Your task to perform on an android device: What is the news today? Image 0: 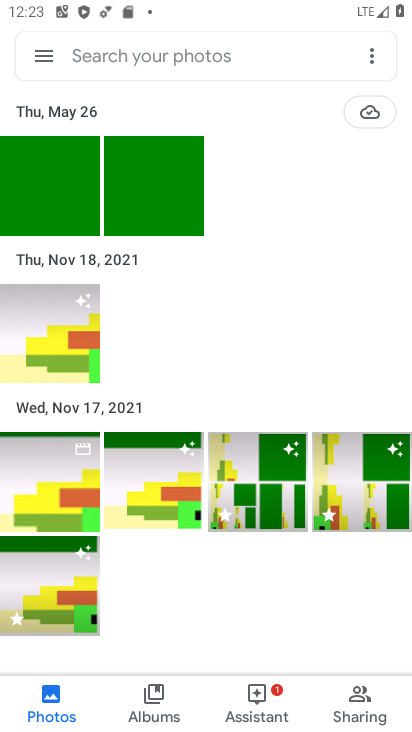
Step 0: press home button
Your task to perform on an android device: What is the news today? Image 1: 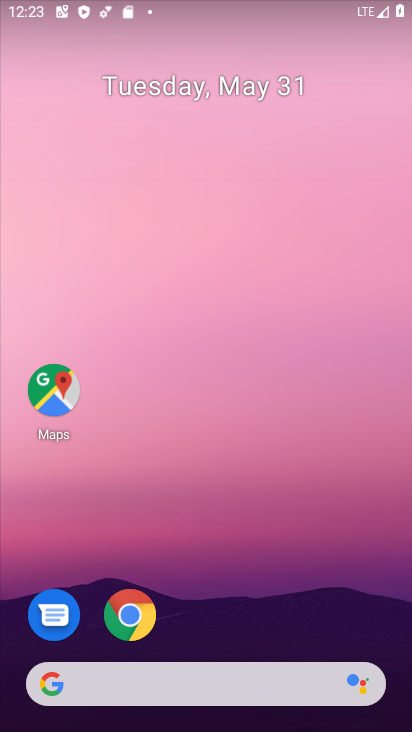
Step 1: click (191, 693)
Your task to perform on an android device: What is the news today? Image 2: 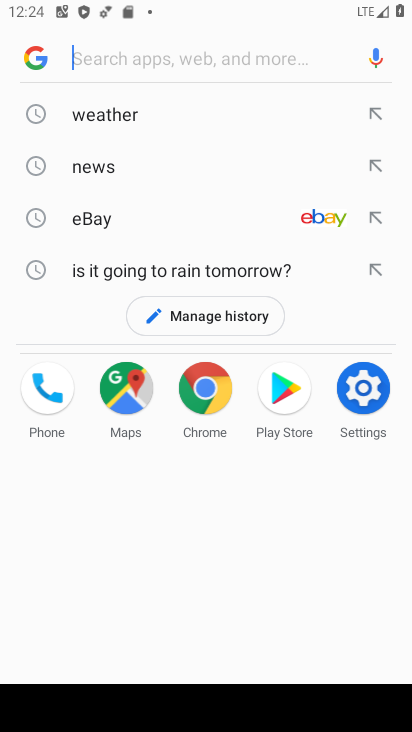
Step 2: type "news today?"
Your task to perform on an android device: What is the news today? Image 3: 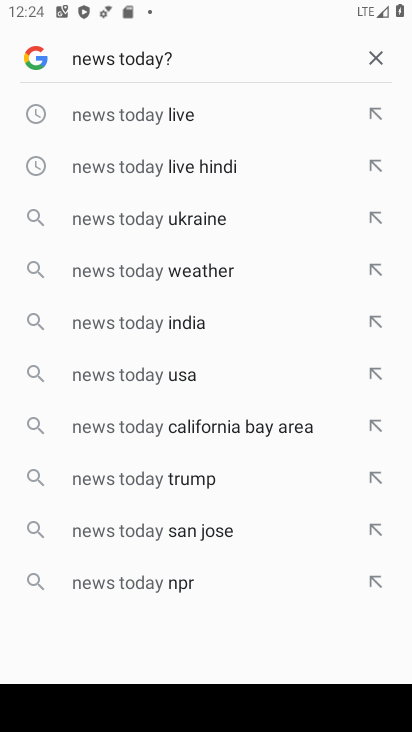
Step 3: click (149, 110)
Your task to perform on an android device: What is the news today? Image 4: 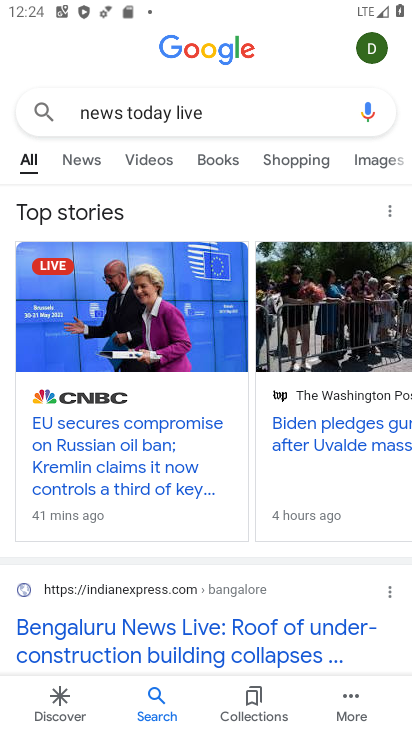
Step 4: task complete